Your task to perform on an android device: change the upload size in google photos Image 0: 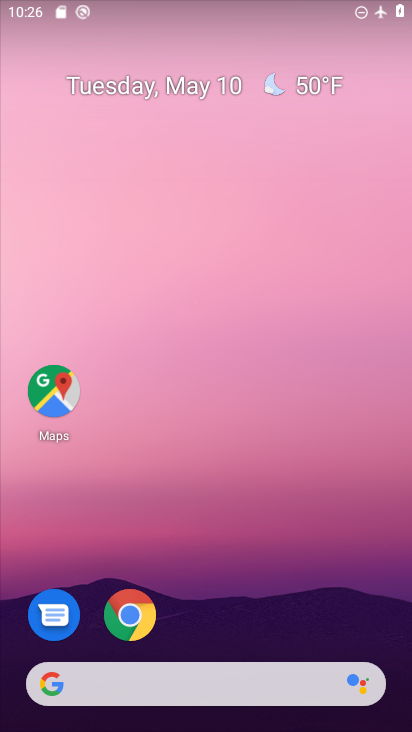
Step 0: drag from (393, 629) to (334, 128)
Your task to perform on an android device: change the upload size in google photos Image 1: 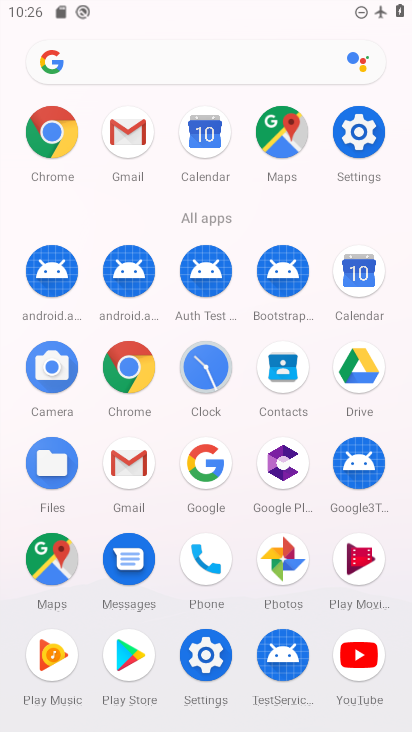
Step 1: click (282, 556)
Your task to perform on an android device: change the upload size in google photos Image 2: 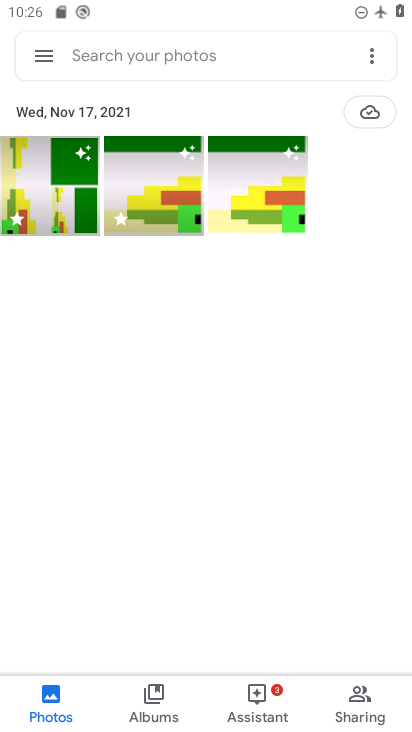
Step 2: click (46, 53)
Your task to perform on an android device: change the upload size in google photos Image 3: 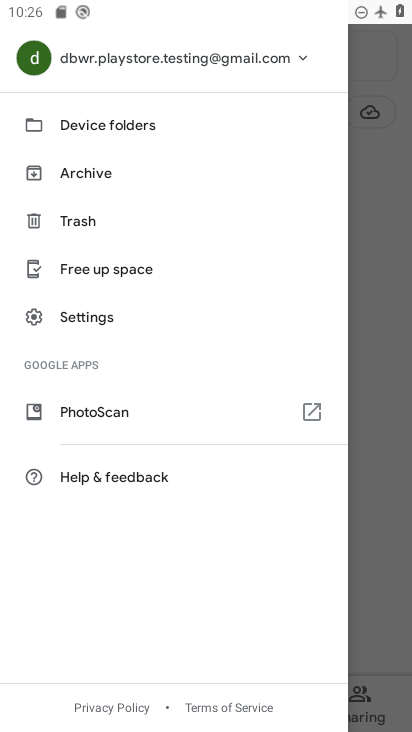
Step 3: click (78, 313)
Your task to perform on an android device: change the upload size in google photos Image 4: 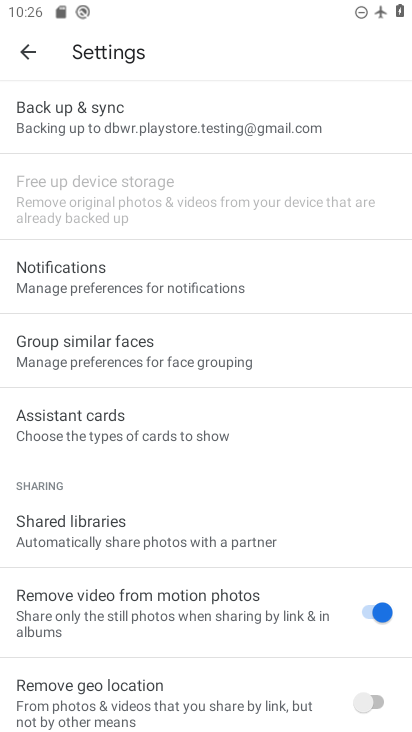
Step 4: click (82, 120)
Your task to perform on an android device: change the upload size in google photos Image 5: 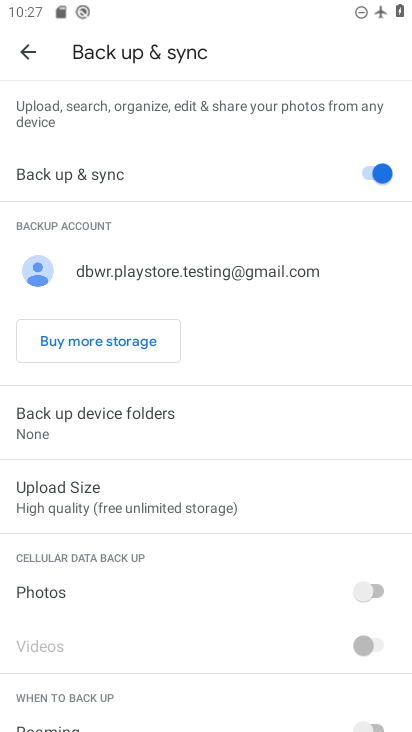
Step 5: click (62, 499)
Your task to perform on an android device: change the upload size in google photos Image 6: 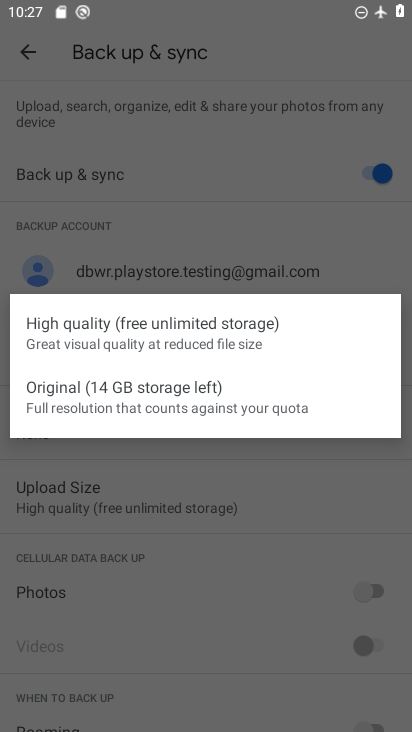
Step 6: click (89, 387)
Your task to perform on an android device: change the upload size in google photos Image 7: 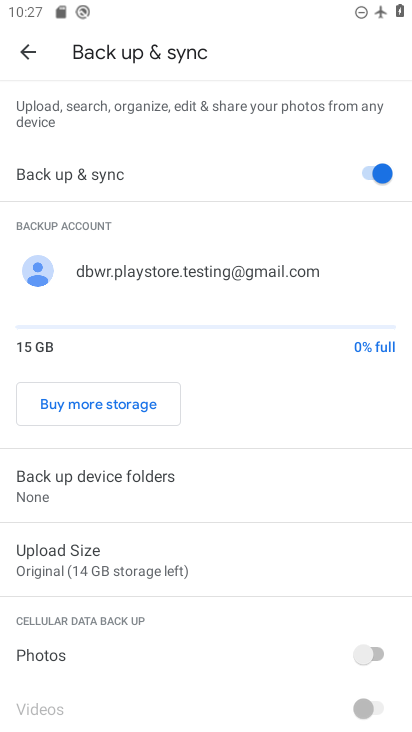
Step 7: task complete